Your task to perform on an android device: Go to wifi settings Image 0: 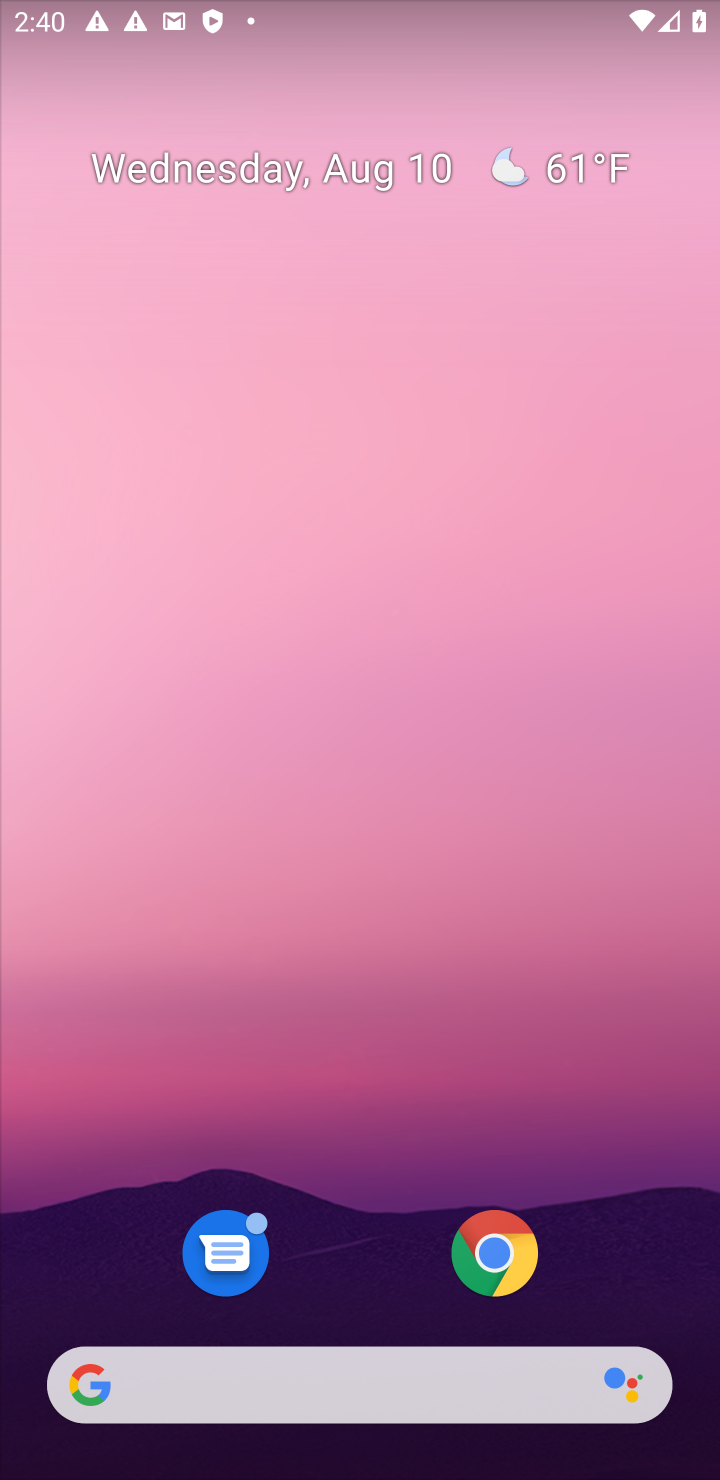
Step 0: drag from (358, 1159) to (430, 640)
Your task to perform on an android device: Go to wifi settings Image 1: 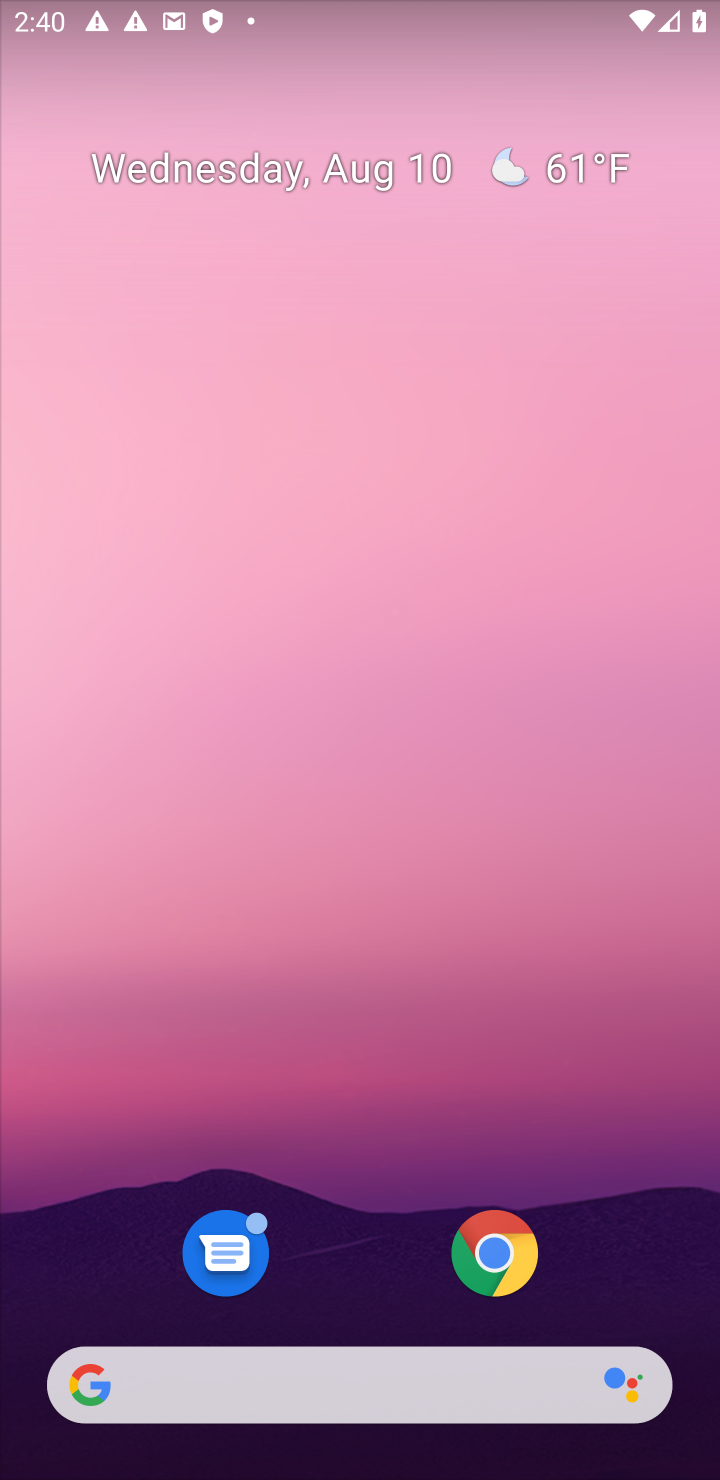
Step 1: drag from (383, 1048) to (439, 429)
Your task to perform on an android device: Go to wifi settings Image 2: 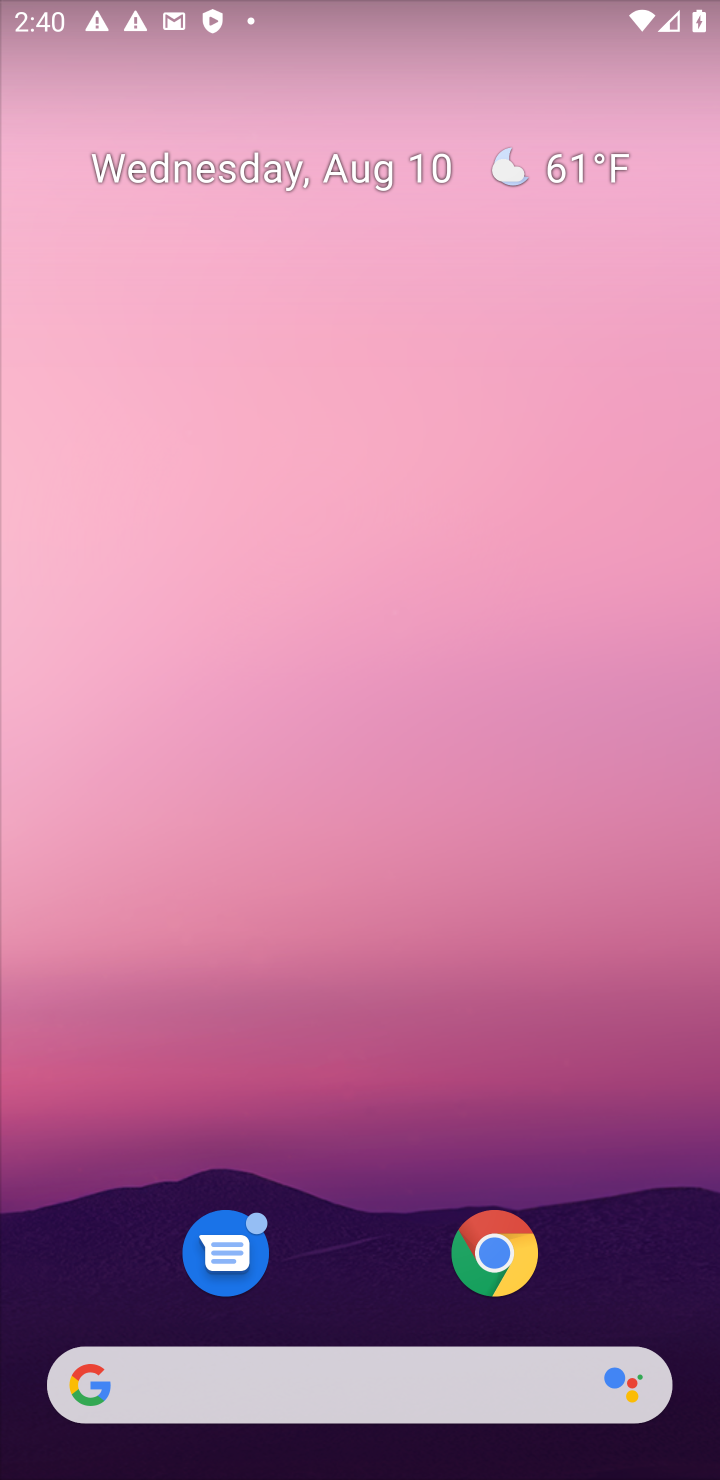
Step 2: drag from (395, 1140) to (559, 405)
Your task to perform on an android device: Go to wifi settings Image 3: 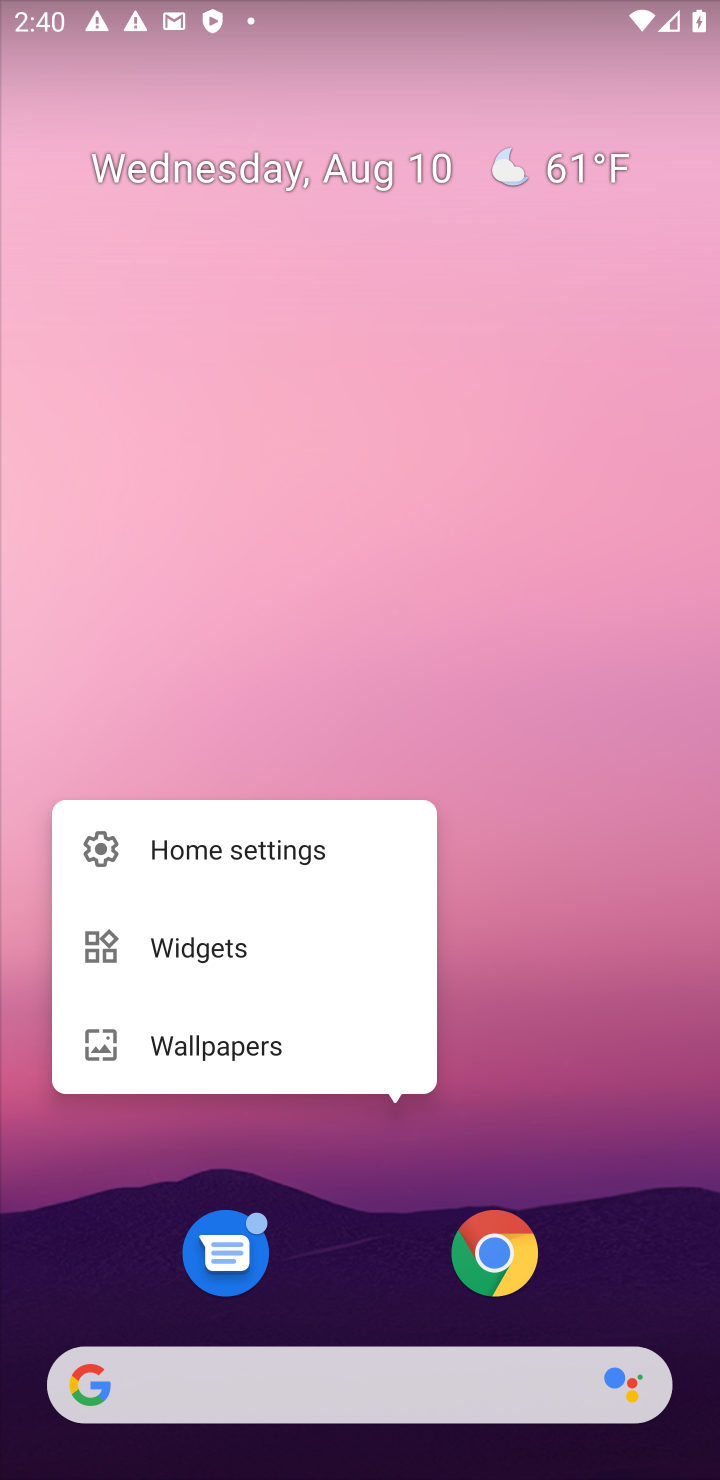
Step 3: click (516, 845)
Your task to perform on an android device: Go to wifi settings Image 4: 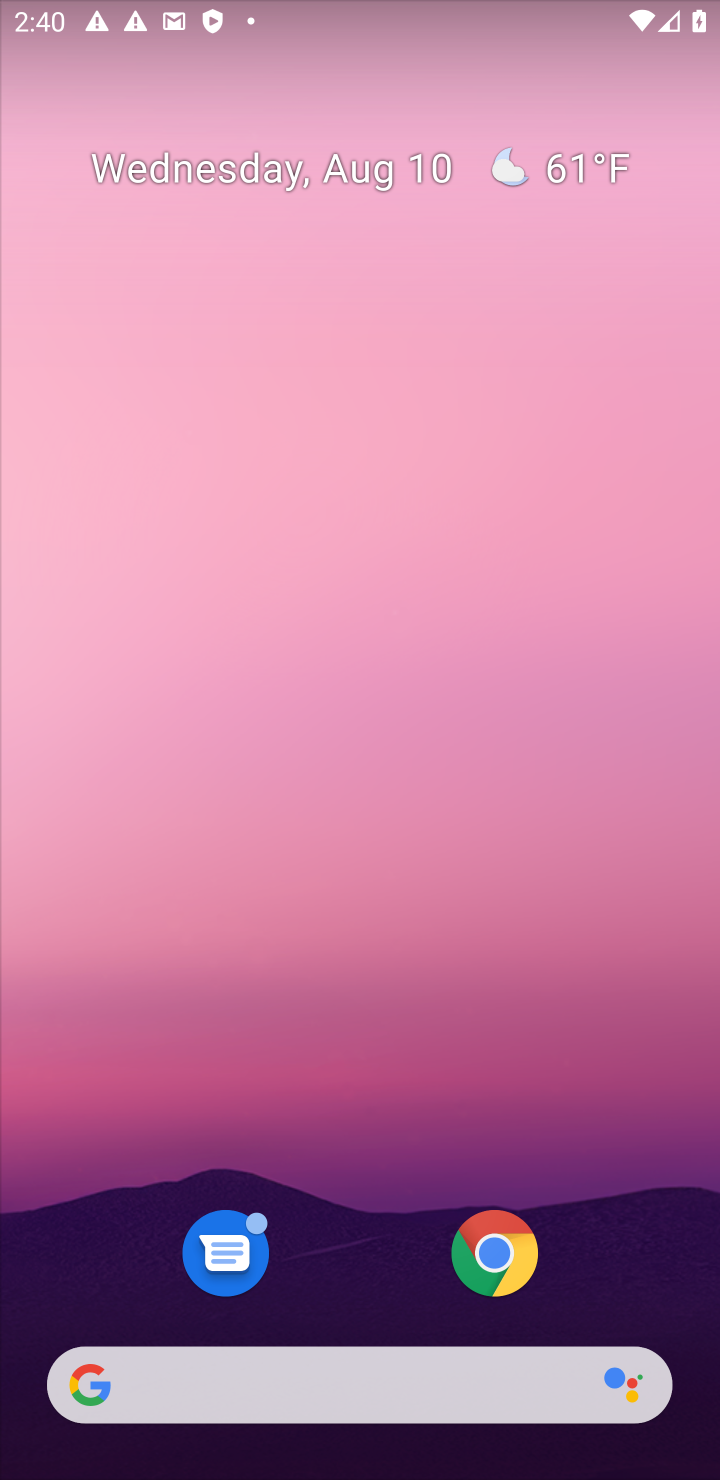
Step 4: drag from (350, 1138) to (502, 182)
Your task to perform on an android device: Go to wifi settings Image 5: 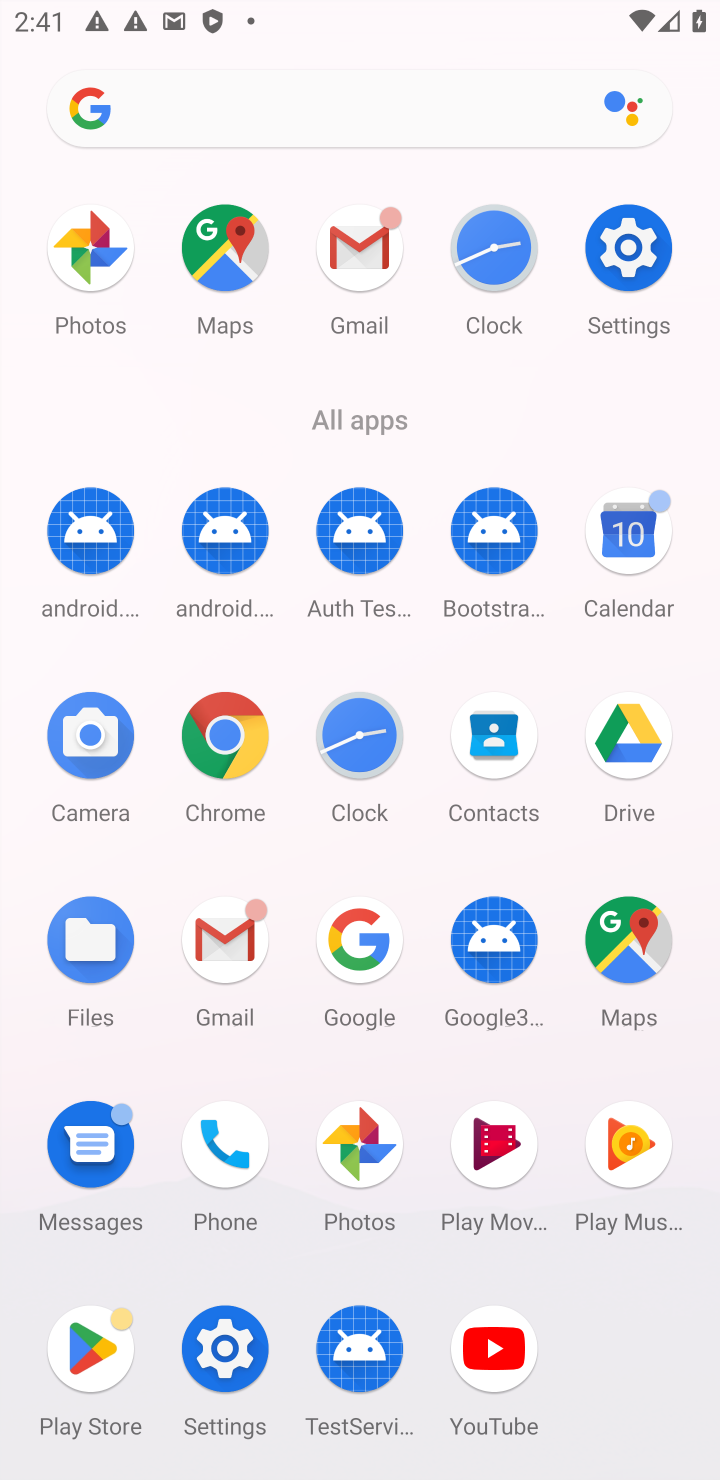
Step 5: click (626, 230)
Your task to perform on an android device: Go to wifi settings Image 6: 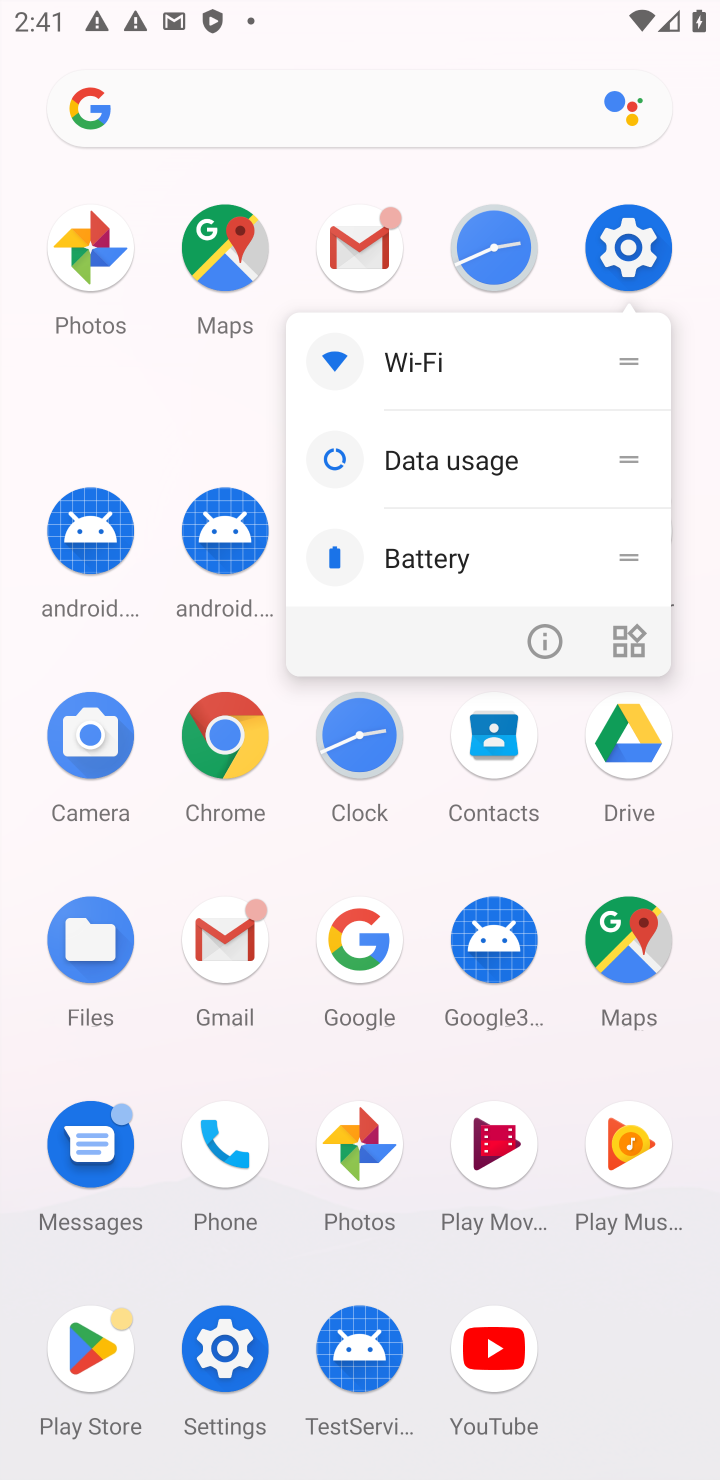
Step 6: click (619, 269)
Your task to perform on an android device: Go to wifi settings Image 7: 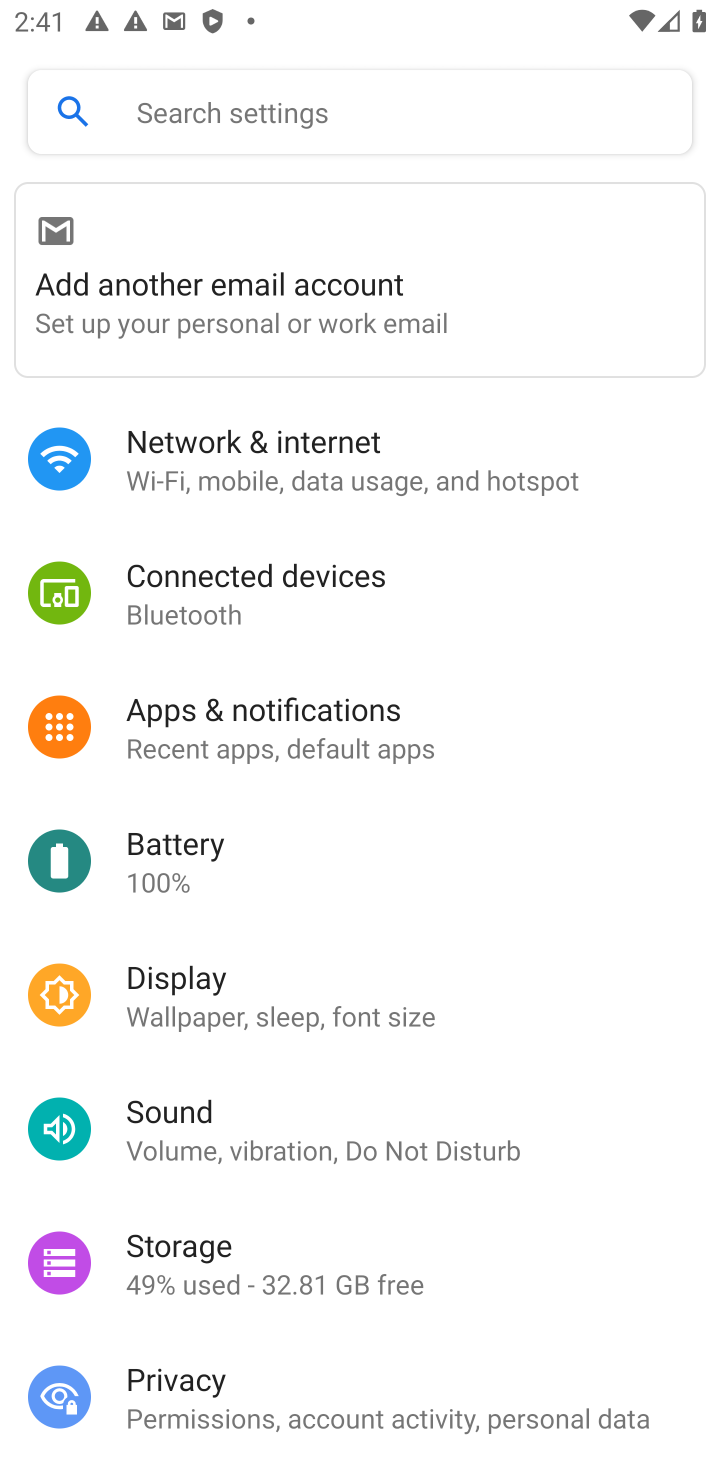
Step 7: task complete